Your task to perform on an android device: What's on my calendar today? Image 0: 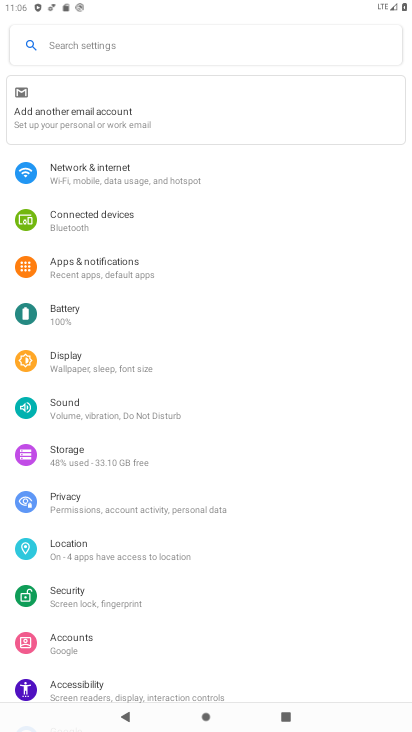
Step 0: press home button
Your task to perform on an android device: What's on my calendar today? Image 1: 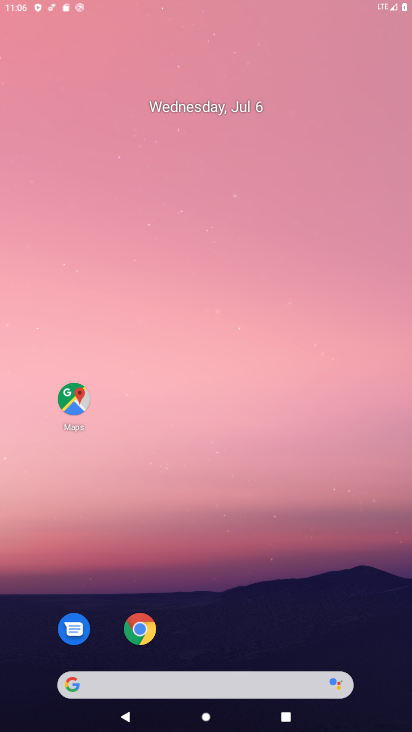
Step 1: press home button
Your task to perform on an android device: What's on my calendar today? Image 2: 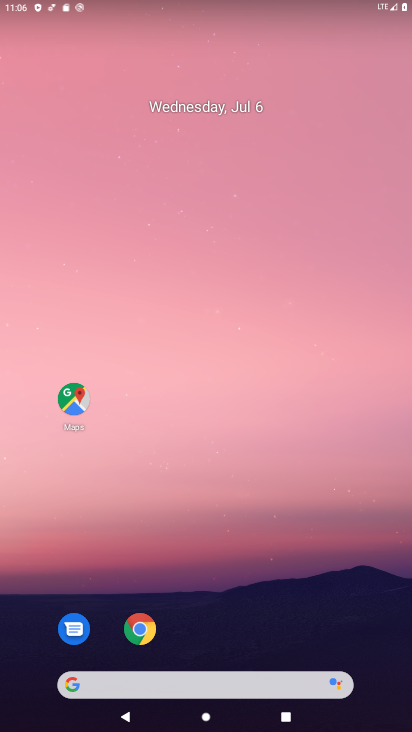
Step 2: drag from (229, 617) to (296, 50)
Your task to perform on an android device: What's on my calendar today? Image 3: 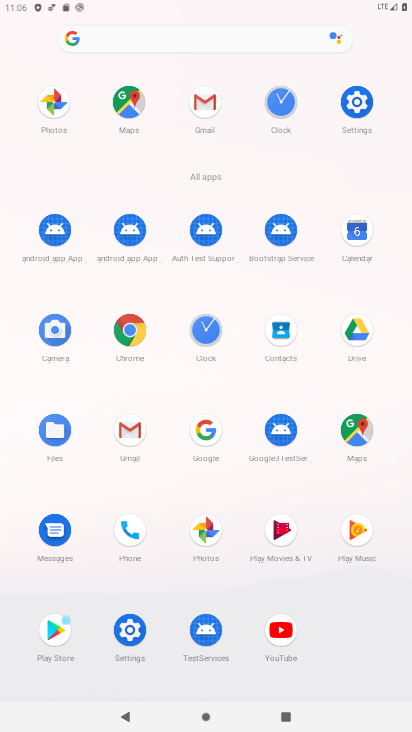
Step 3: click (362, 238)
Your task to perform on an android device: What's on my calendar today? Image 4: 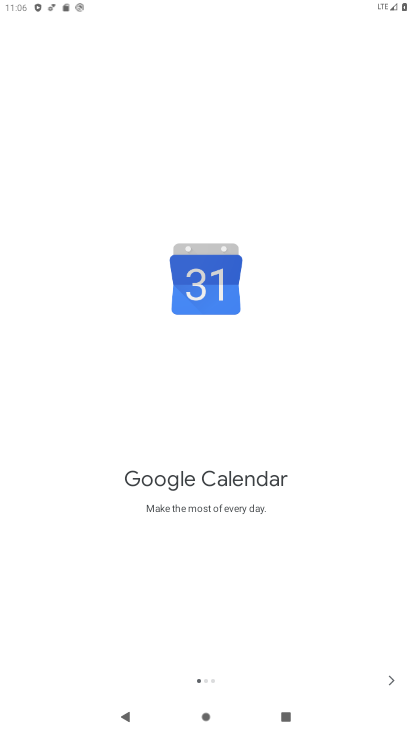
Step 4: click (391, 677)
Your task to perform on an android device: What's on my calendar today? Image 5: 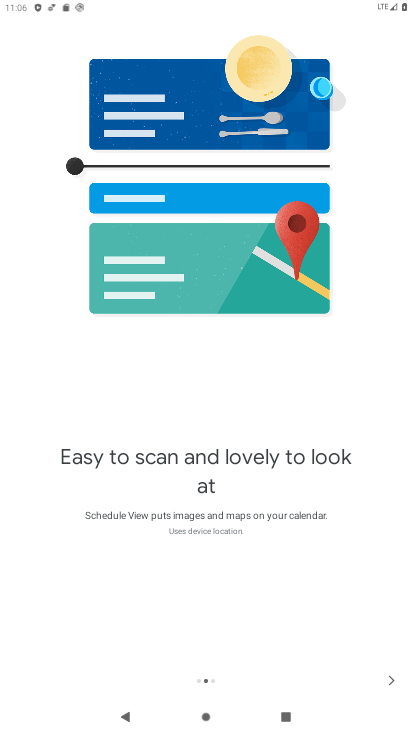
Step 5: click (391, 677)
Your task to perform on an android device: What's on my calendar today? Image 6: 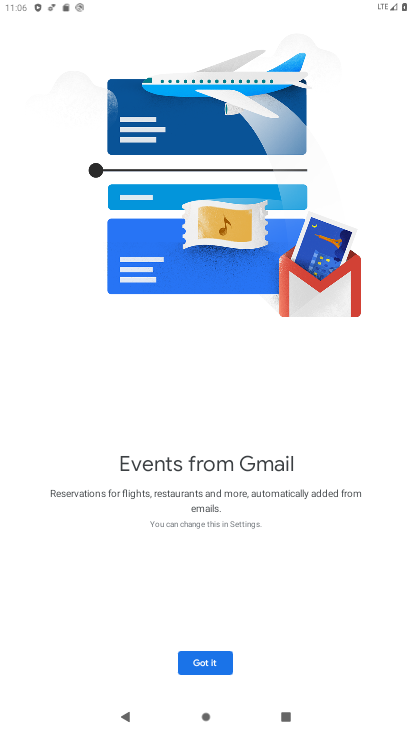
Step 6: click (391, 677)
Your task to perform on an android device: What's on my calendar today? Image 7: 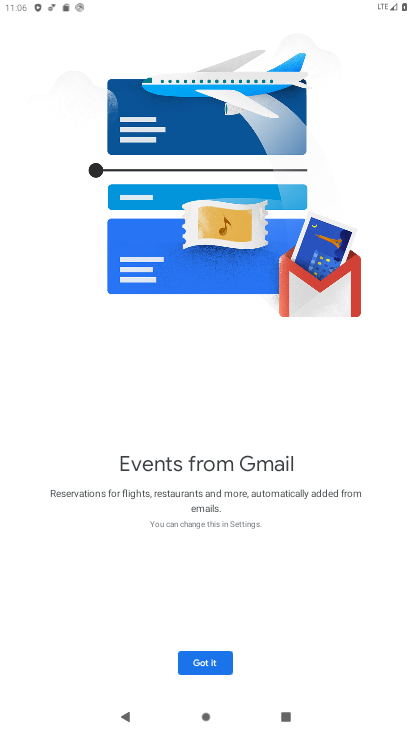
Step 7: click (203, 662)
Your task to perform on an android device: What's on my calendar today? Image 8: 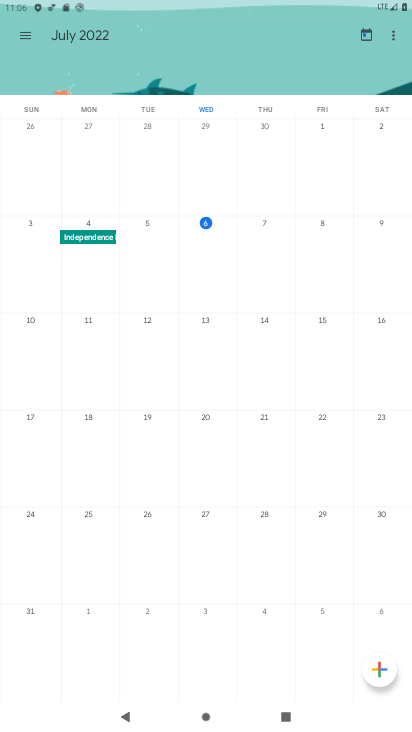
Step 8: click (22, 30)
Your task to perform on an android device: What's on my calendar today? Image 9: 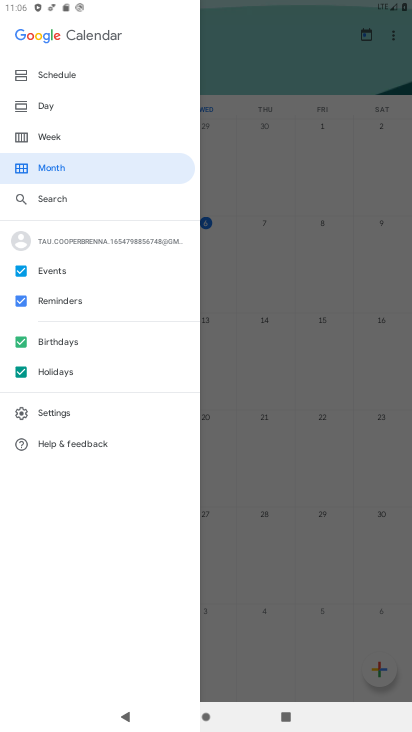
Step 9: click (65, 74)
Your task to perform on an android device: What's on my calendar today? Image 10: 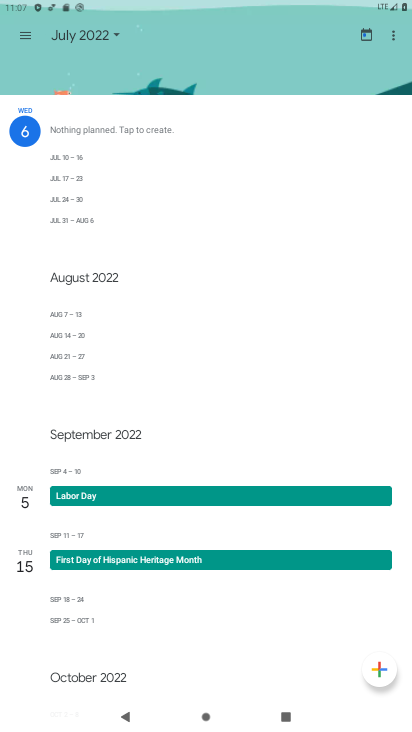
Step 10: task complete